Your task to perform on an android device: Go to Google Image 0: 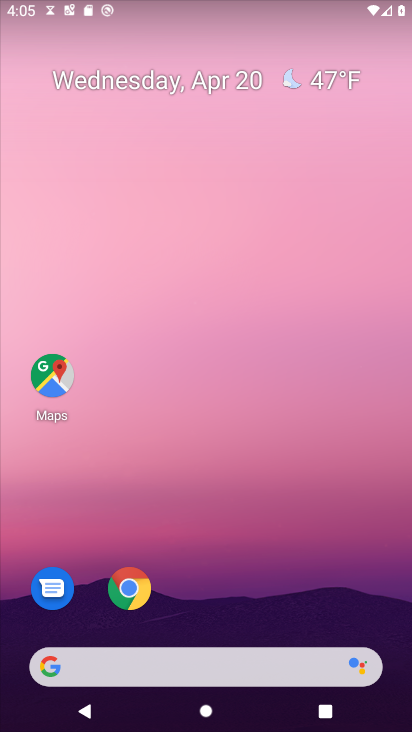
Step 0: drag from (189, 532) to (208, 259)
Your task to perform on an android device: Go to Google Image 1: 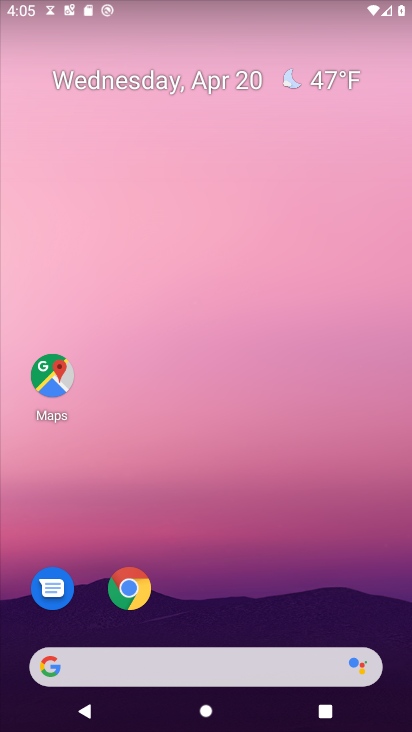
Step 1: drag from (237, 611) to (308, 92)
Your task to perform on an android device: Go to Google Image 2: 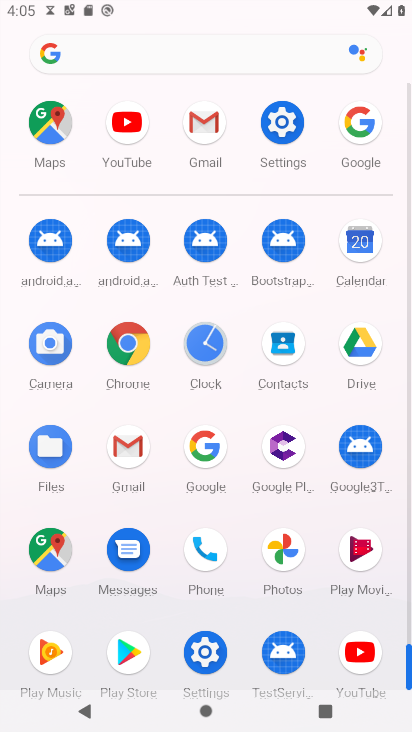
Step 2: click (202, 447)
Your task to perform on an android device: Go to Google Image 3: 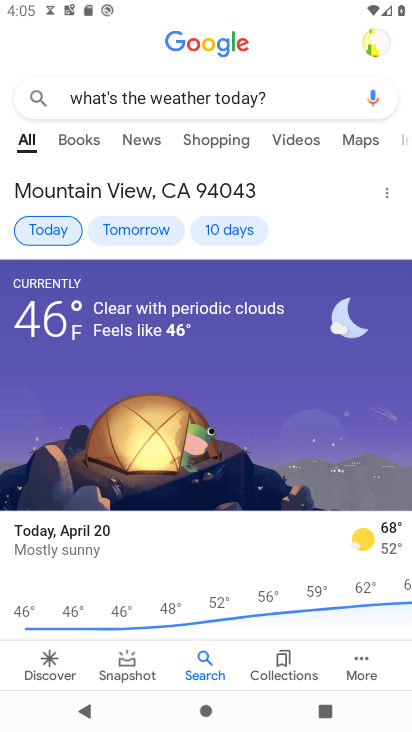
Step 3: task complete